Your task to perform on an android device: Search for vegetarian restaurants on Maps Image 0: 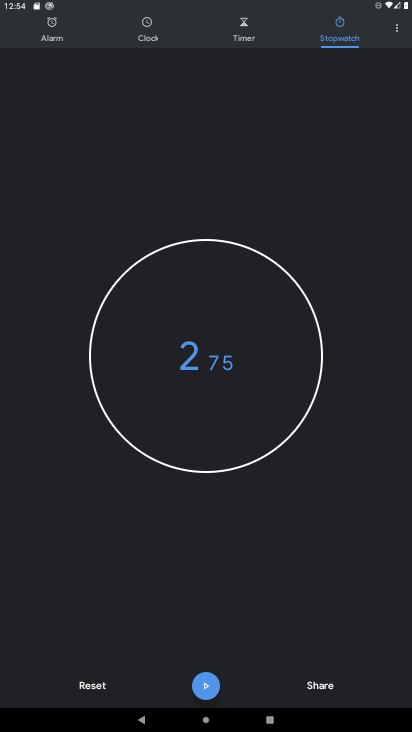
Step 0: press home button
Your task to perform on an android device: Search for vegetarian restaurants on Maps Image 1: 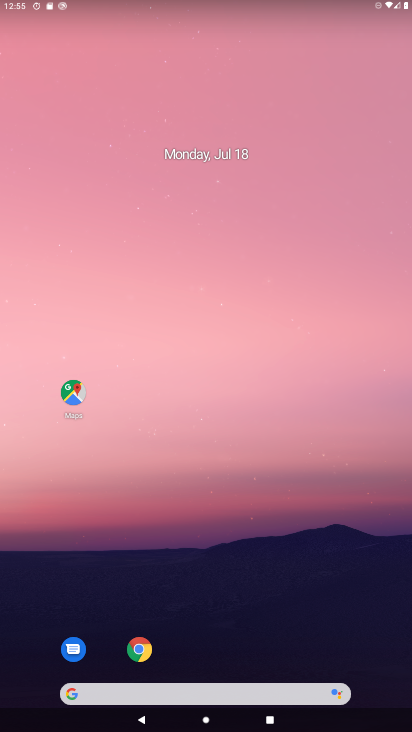
Step 1: click (67, 404)
Your task to perform on an android device: Search for vegetarian restaurants on Maps Image 2: 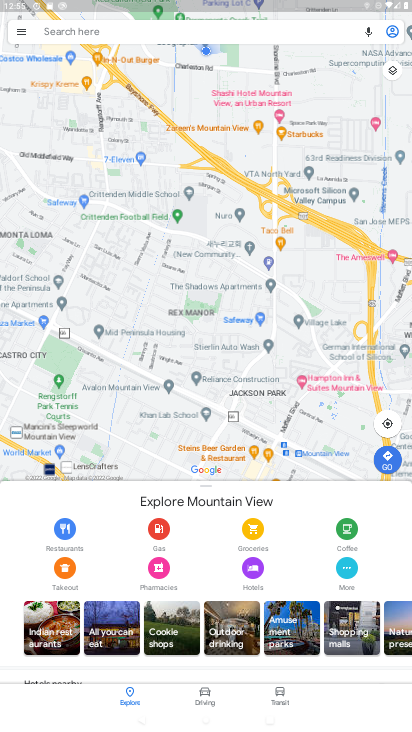
Step 2: click (53, 29)
Your task to perform on an android device: Search for vegetarian restaurants on Maps Image 3: 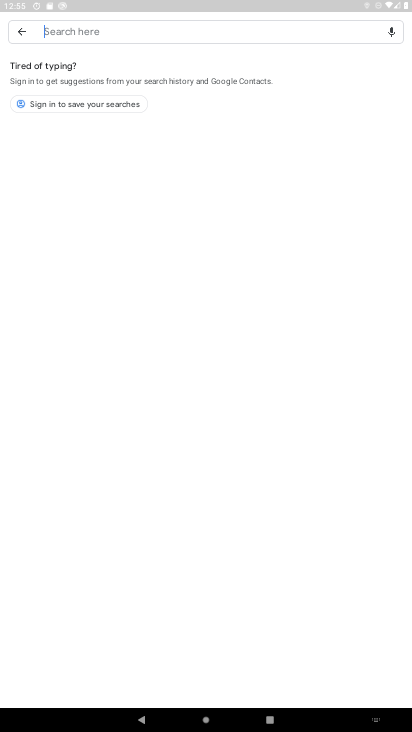
Step 3: type "vegetarian restaurants "
Your task to perform on an android device: Search for vegetarian restaurants on Maps Image 4: 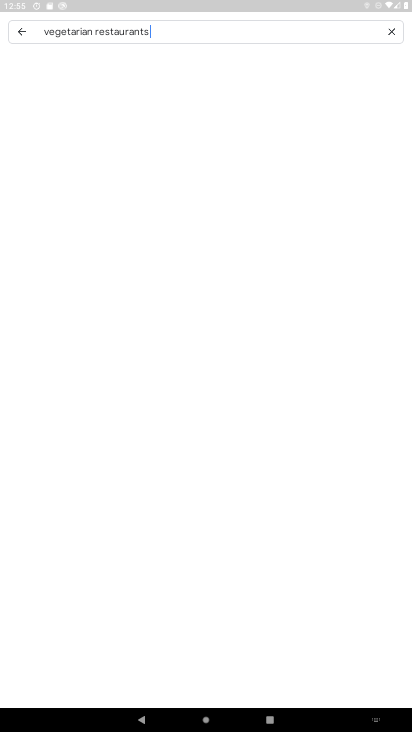
Step 4: type ""
Your task to perform on an android device: Search for vegetarian restaurants on Maps Image 5: 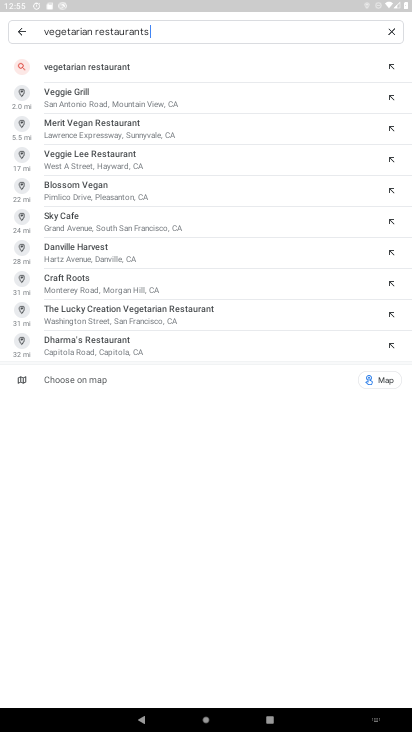
Step 5: click (118, 69)
Your task to perform on an android device: Search for vegetarian restaurants on Maps Image 6: 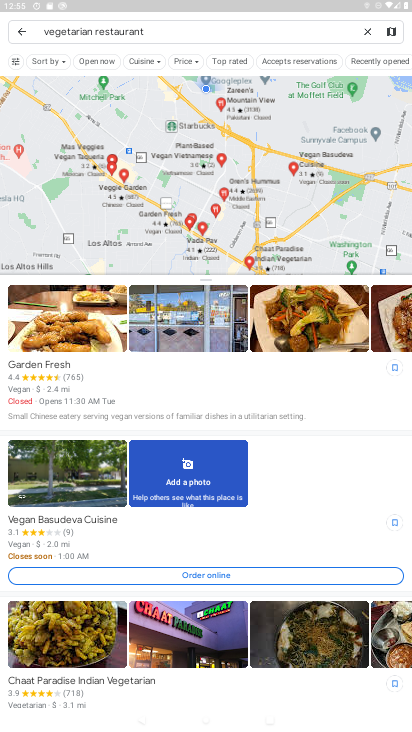
Step 6: task complete